Your task to perform on an android device: delete browsing data in the chrome app Image 0: 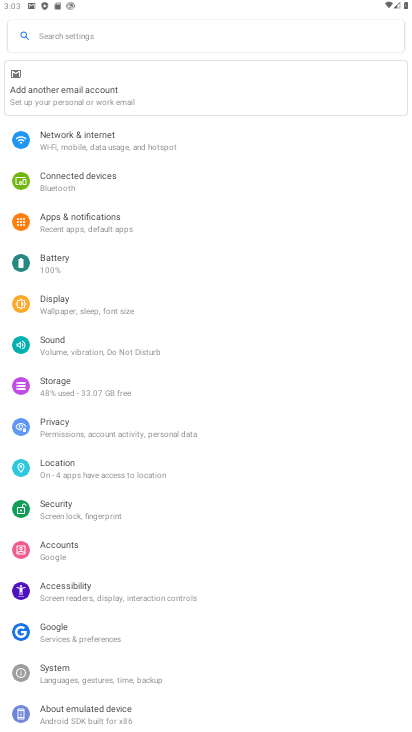
Step 0: press home button
Your task to perform on an android device: delete browsing data in the chrome app Image 1: 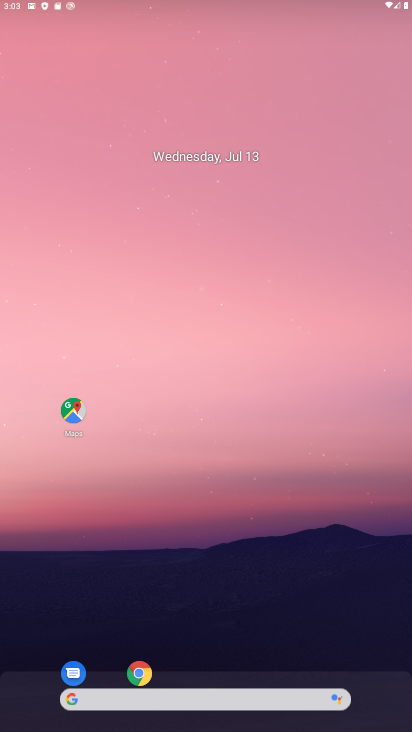
Step 1: drag from (265, 665) to (278, 38)
Your task to perform on an android device: delete browsing data in the chrome app Image 2: 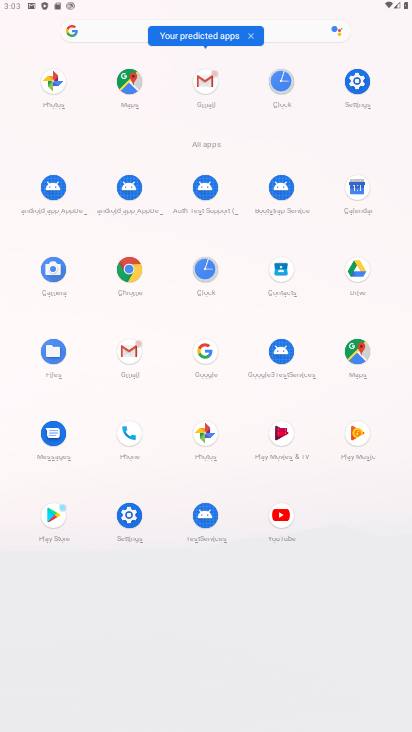
Step 2: click (127, 258)
Your task to perform on an android device: delete browsing data in the chrome app Image 3: 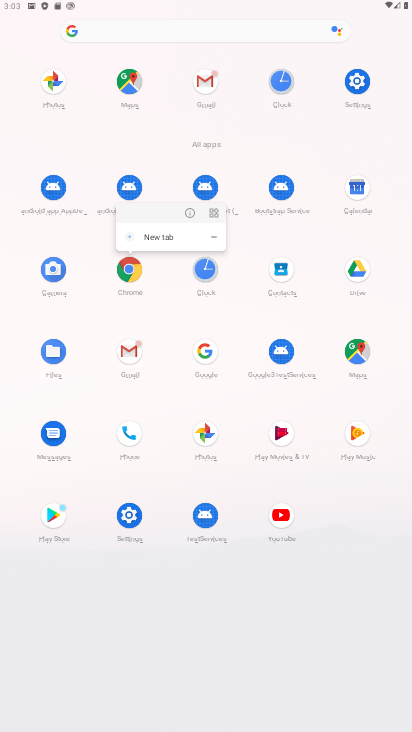
Step 3: click (123, 272)
Your task to perform on an android device: delete browsing data in the chrome app Image 4: 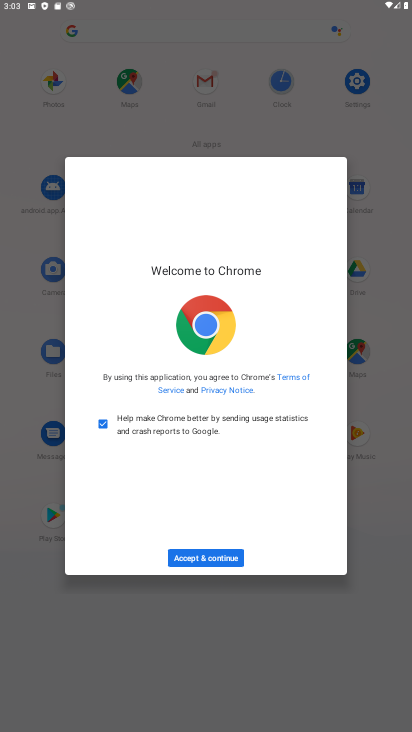
Step 4: click (215, 558)
Your task to perform on an android device: delete browsing data in the chrome app Image 5: 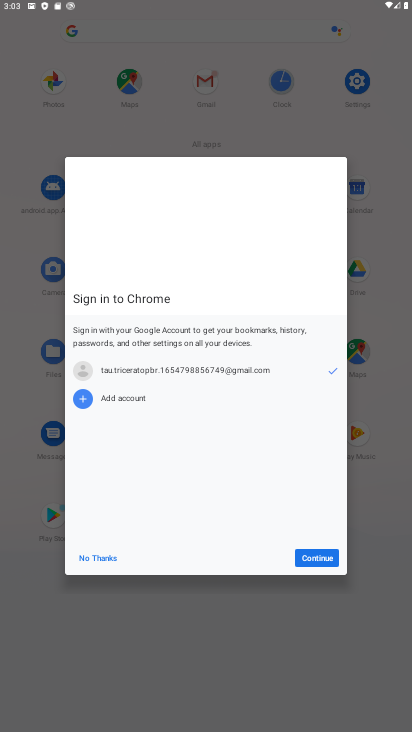
Step 5: click (315, 562)
Your task to perform on an android device: delete browsing data in the chrome app Image 6: 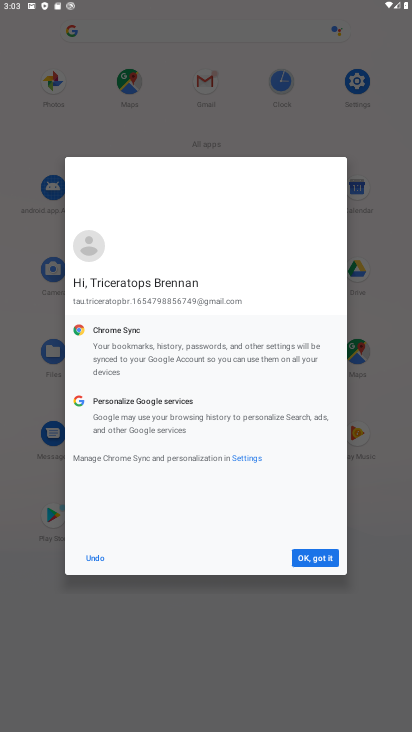
Step 6: click (315, 562)
Your task to perform on an android device: delete browsing data in the chrome app Image 7: 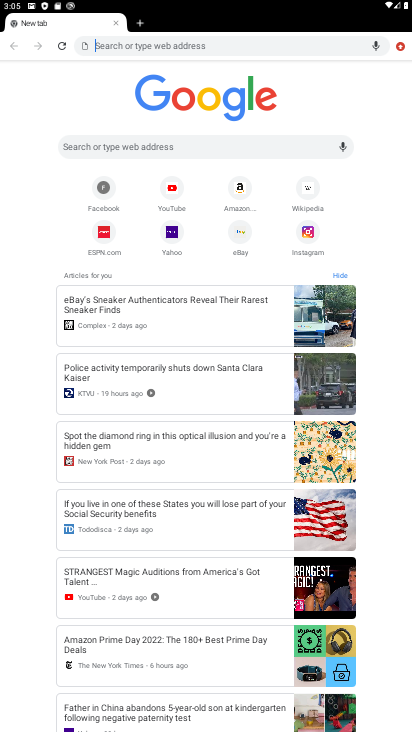
Step 7: drag from (401, 45) to (338, 240)
Your task to perform on an android device: delete browsing data in the chrome app Image 8: 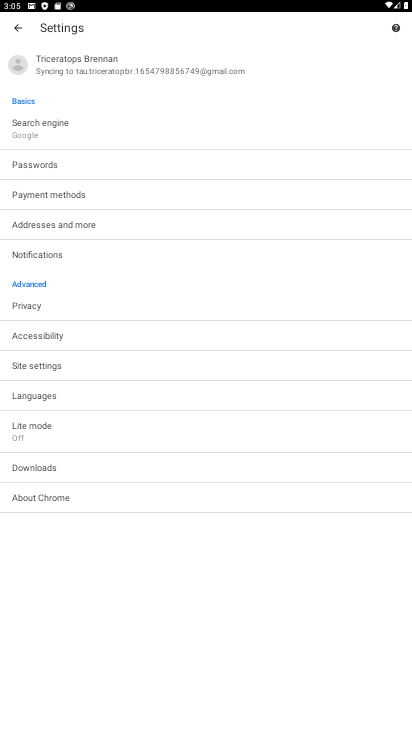
Step 8: click (76, 309)
Your task to perform on an android device: delete browsing data in the chrome app Image 9: 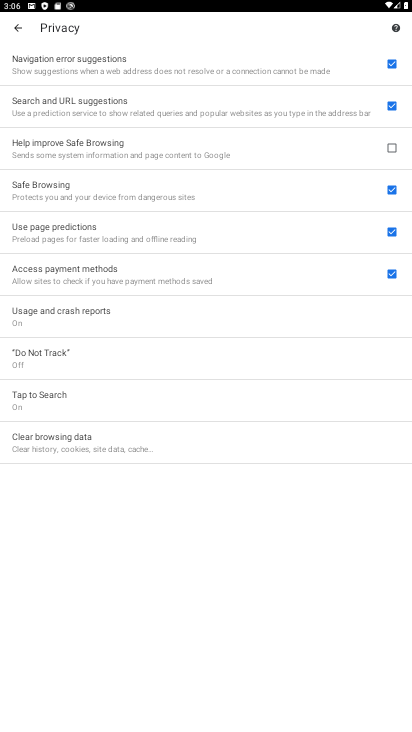
Step 9: click (108, 441)
Your task to perform on an android device: delete browsing data in the chrome app Image 10: 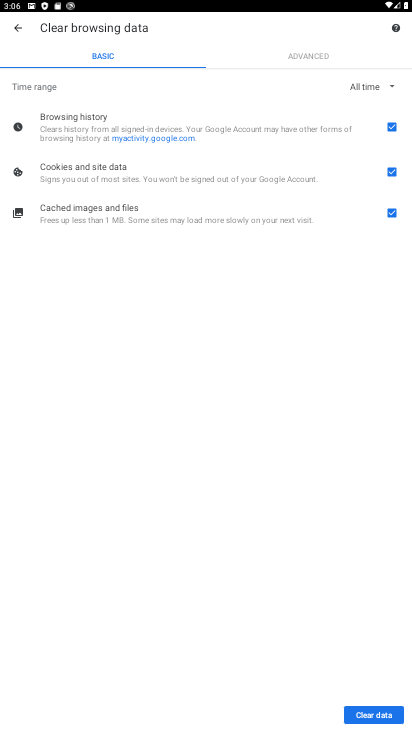
Step 10: click (396, 713)
Your task to perform on an android device: delete browsing data in the chrome app Image 11: 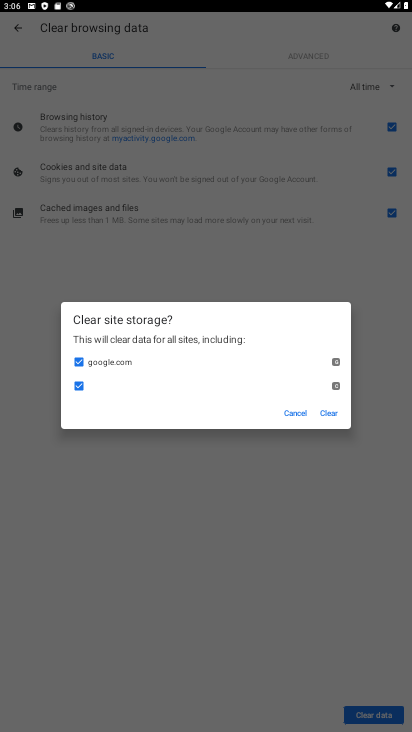
Step 11: click (334, 409)
Your task to perform on an android device: delete browsing data in the chrome app Image 12: 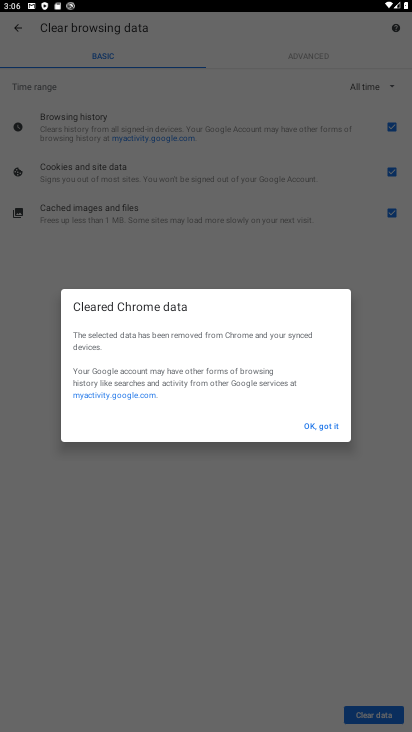
Step 12: click (333, 426)
Your task to perform on an android device: delete browsing data in the chrome app Image 13: 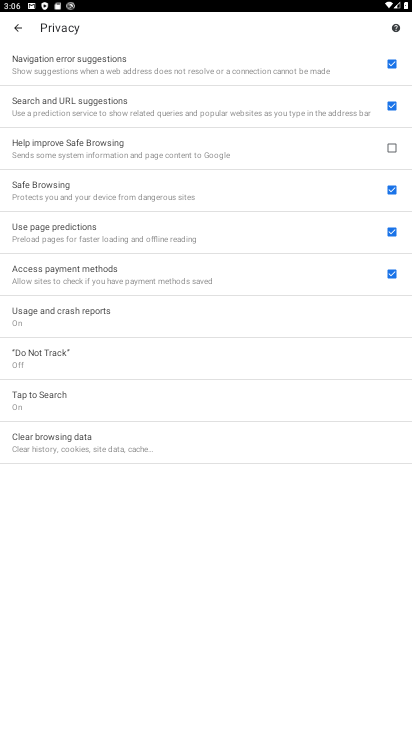
Step 13: task complete